Your task to perform on an android device: all mails in gmail Image 0: 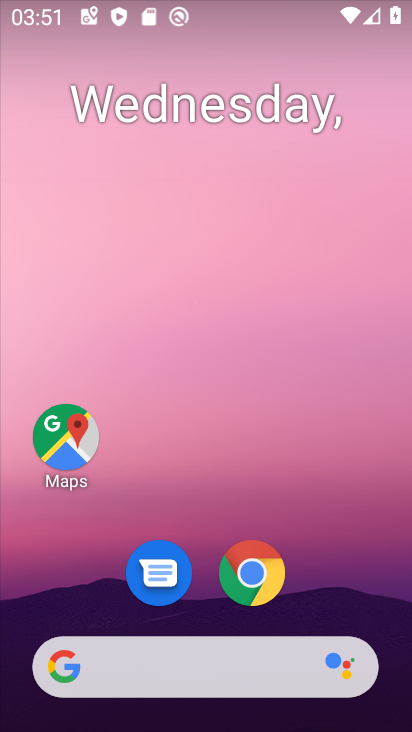
Step 0: drag from (195, 526) to (258, 11)
Your task to perform on an android device: all mails in gmail Image 1: 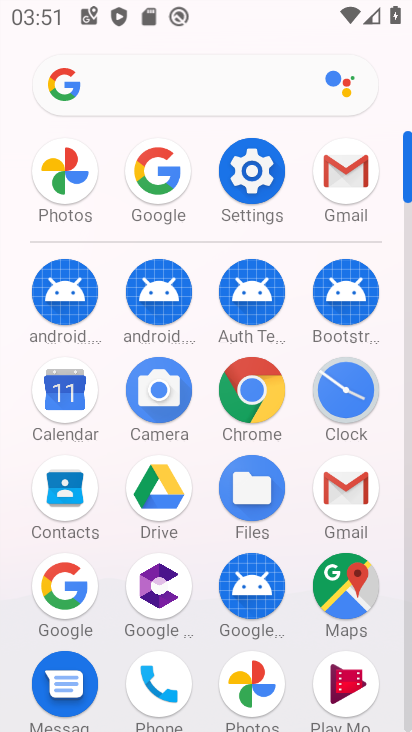
Step 1: click (347, 169)
Your task to perform on an android device: all mails in gmail Image 2: 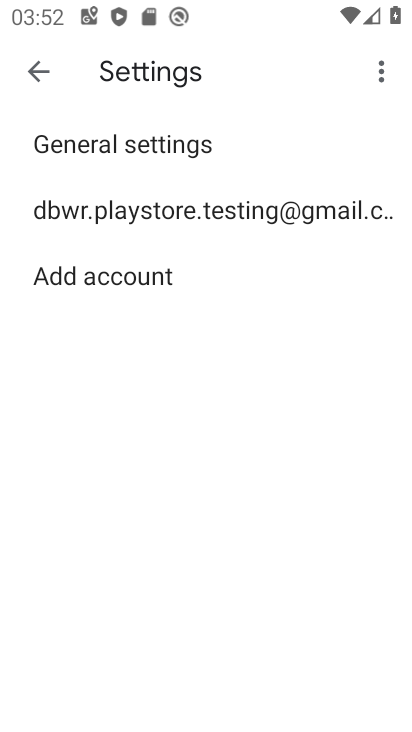
Step 2: task complete